Your task to perform on an android device: Open my contact list Image 0: 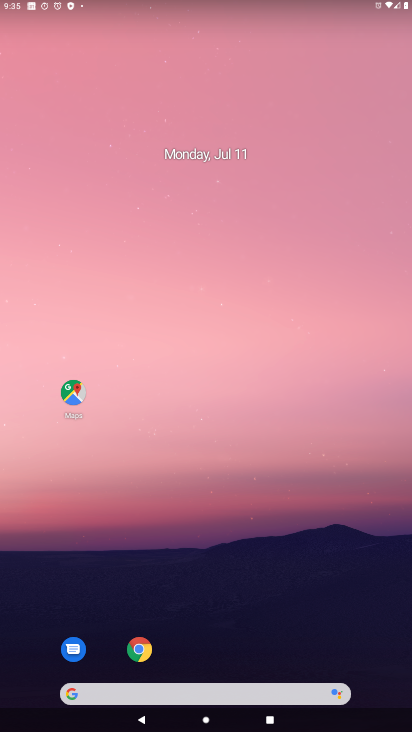
Step 0: drag from (278, 691) to (350, 225)
Your task to perform on an android device: Open my contact list Image 1: 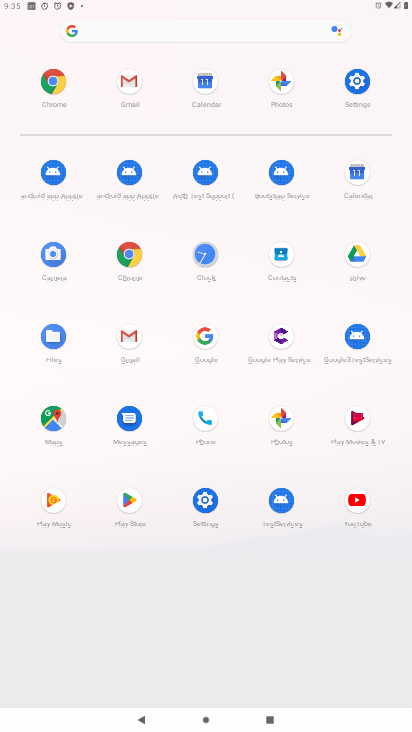
Step 1: click (278, 255)
Your task to perform on an android device: Open my contact list Image 2: 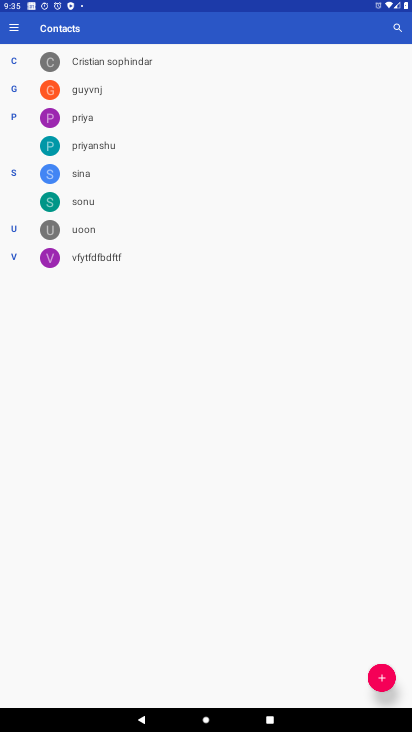
Step 2: task complete